Your task to perform on an android device: turn on javascript in the chrome app Image 0: 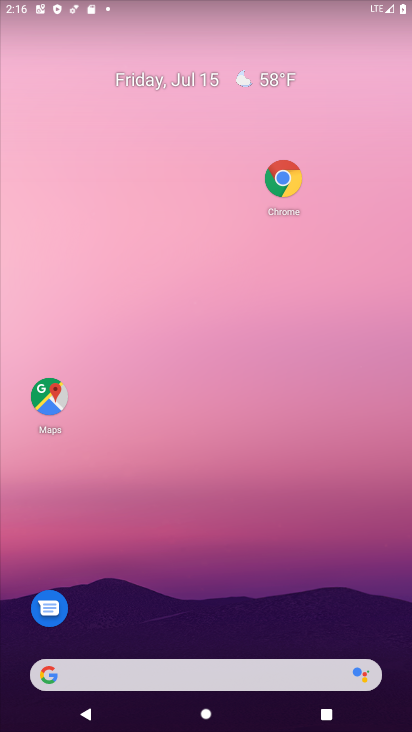
Step 0: click (282, 177)
Your task to perform on an android device: turn on javascript in the chrome app Image 1: 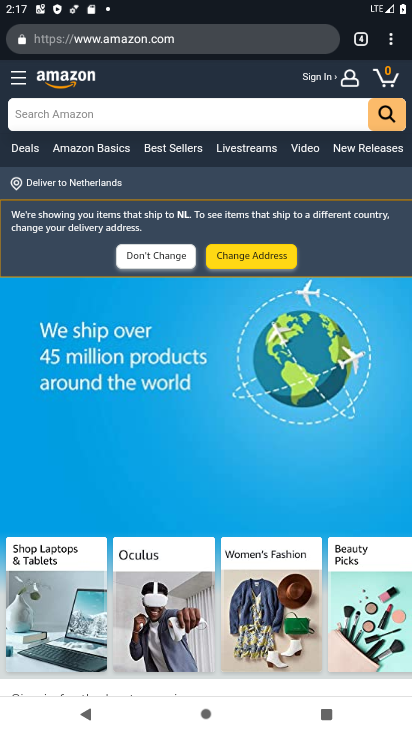
Step 1: drag from (387, 37) to (270, 467)
Your task to perform on an android device: turn on javascript in the chrome app Image 2: 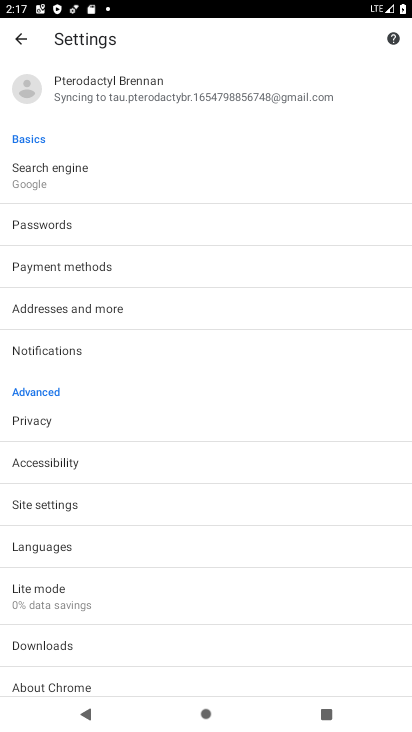
Step 2: click (52, 503)
Your task to perform on an android device: turn on javascript in the chrome app Image 3: 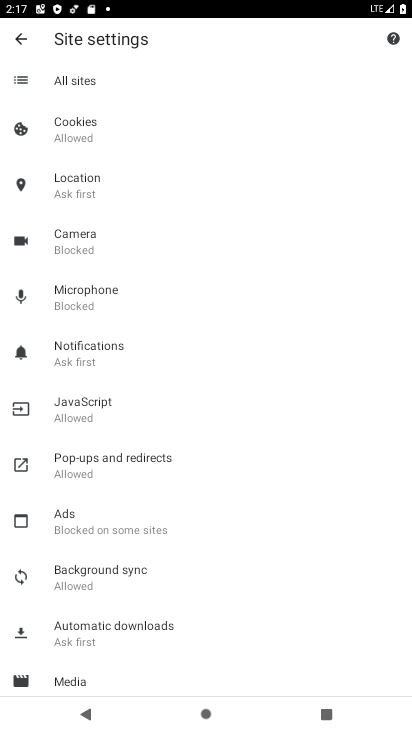
Step 3: click (72, 395)
Your task to perform on an android device: turn on javascript in the chrome app Image 4: 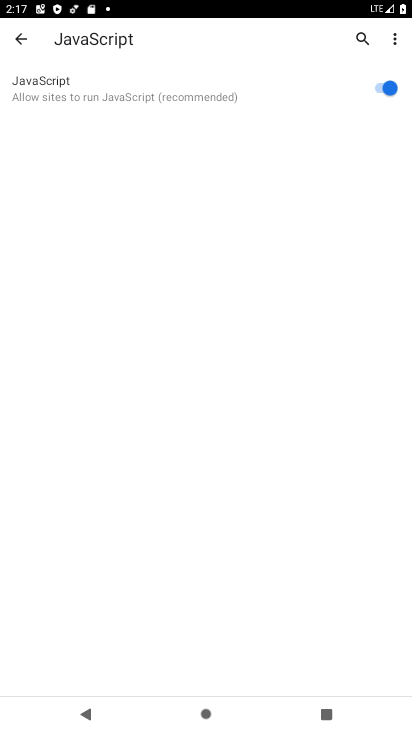
Step 4: task complete